Your task to perform on an android device: Open maps Image 0: 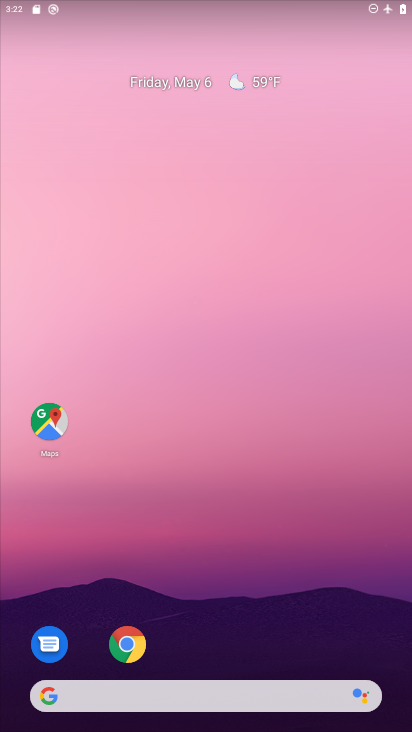
Step 0: drag from (210, 728) to (221, 153)
Your task to perform on an android device: Open maps Image 1: 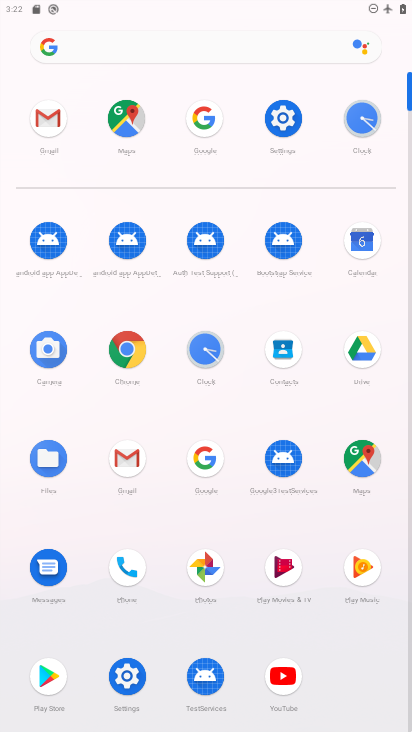
Step 1: click (354, 456)
Your task to perform on an android device: Open maps Image 2: 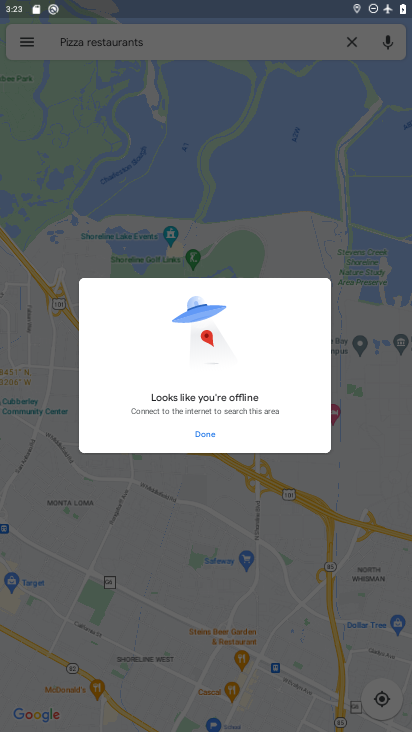
Step 2: task complete